Your task to perform on an android device: What's the weather? Image 0: 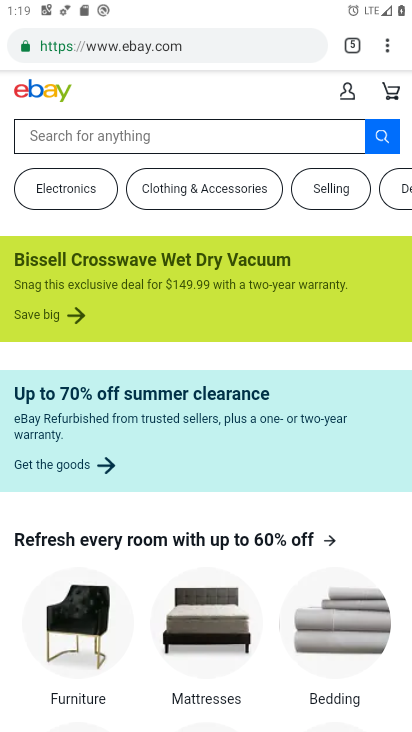
Step 0: press home button
Your task to perform on an android device: What's the weather? Image 1: 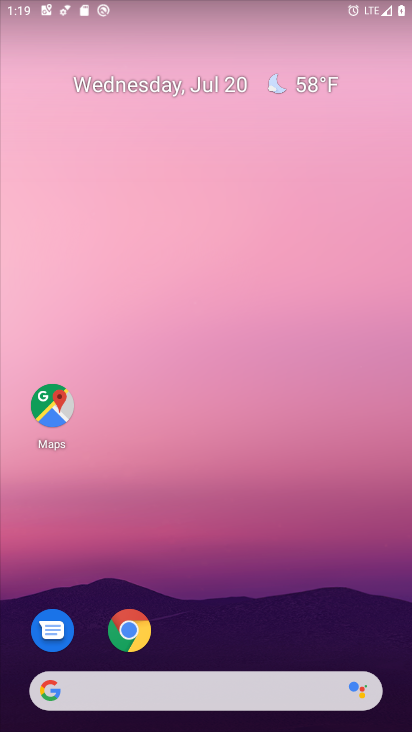
Step 1: drag from (248, 630) to (195, 63)
Your task to perform on an android device: What's the weather? Image 2: 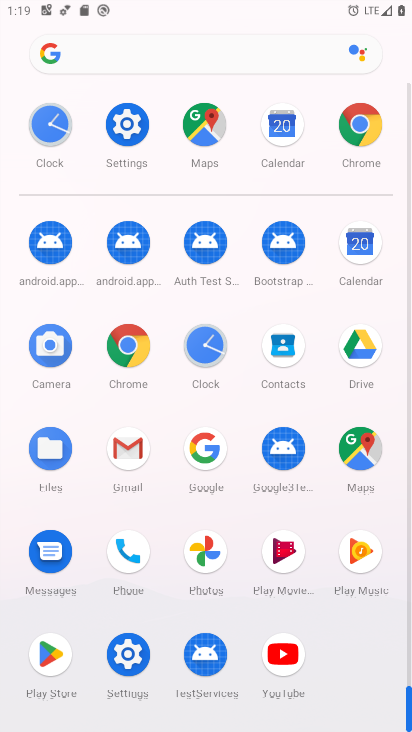
Step 2: click (211, 471)
Your task to perform on an android device: What's the weather? Image 3: 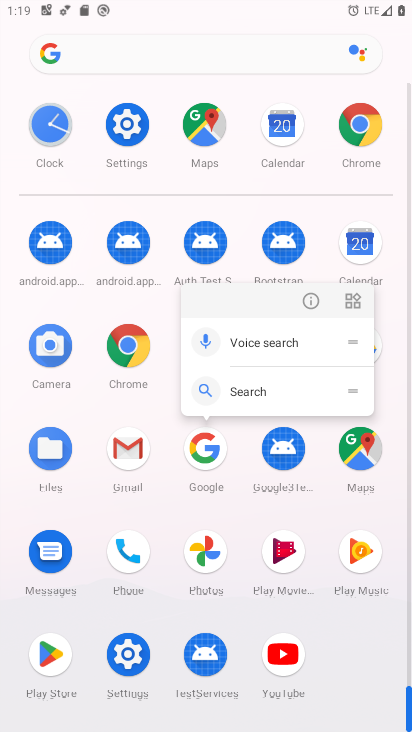
Step 3: click (202, 483)
Your task to perform on an android device: What's the weather? Image 4: 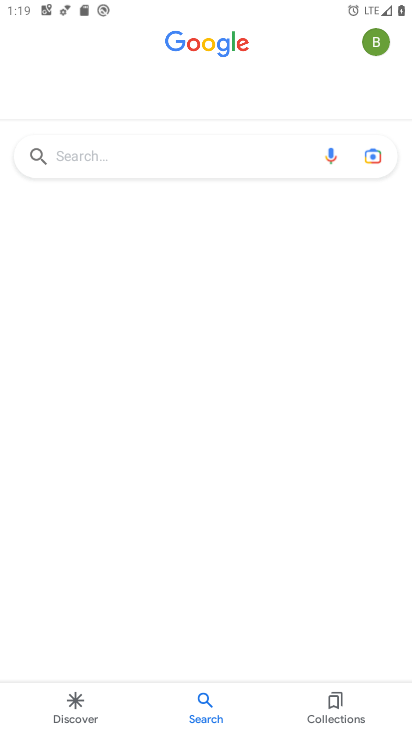
Step 4: click (234, 157)
Your task to perform on an android device: What's the weather? Image 5: 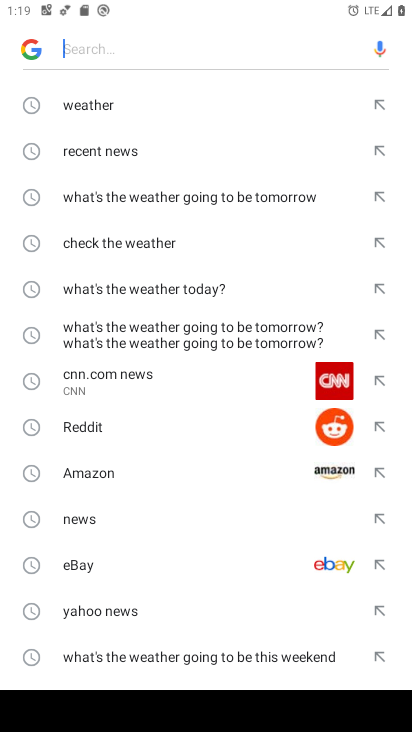
Step 5: click (135, 97)
Your task to perform on an android device: What's the weather? Image 6: 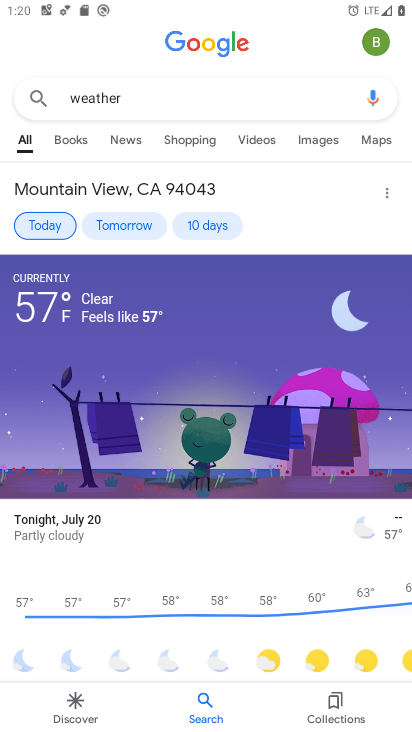
Step 6: task complete